Your task to perform on an android device: Find coffee shops on Maps Image 0: 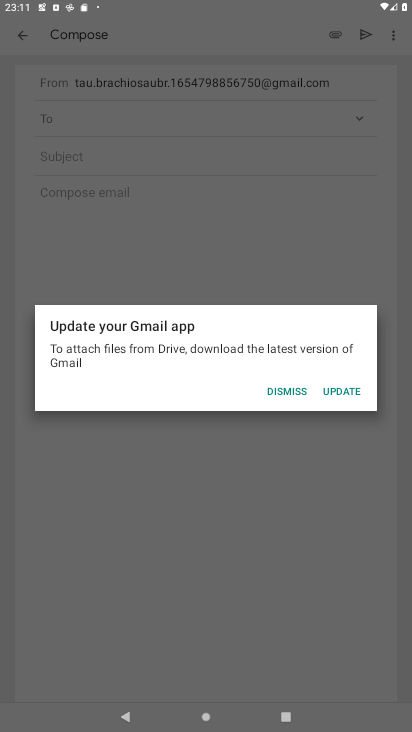
Step 0: press home button
Your task to perform on an android device: Find coffee shops on Maps Image 1: 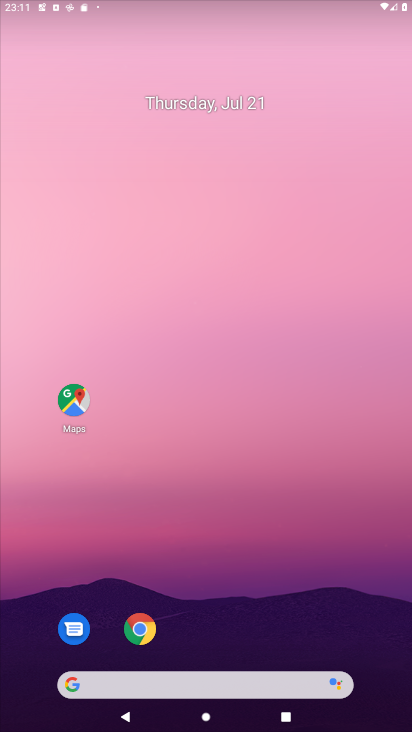
Step 1: drag from (281, 614) to (208, 109)
Your task to perform on an android device: Find coffee shops on Maps Image 2: 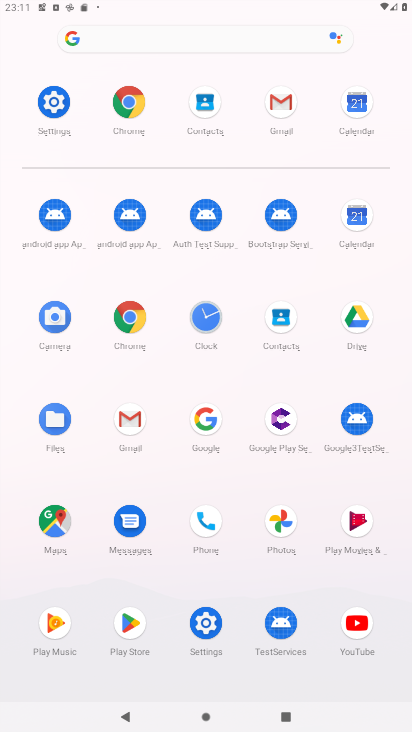
Step 2: click (64, 533)
Your task to perform on an android device: Find coffee shops on Maps Image 3: 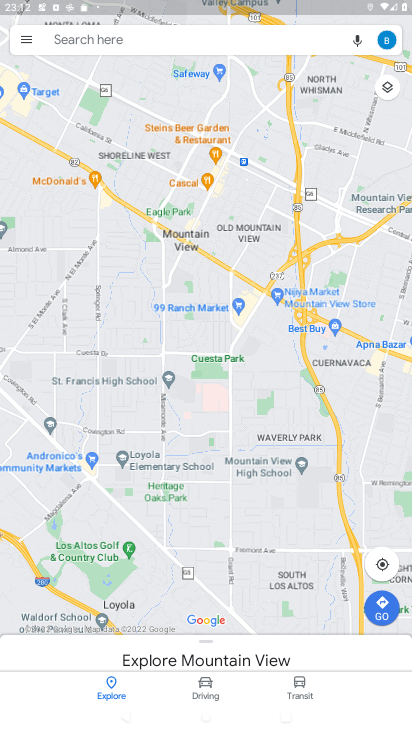
Step 3: click (123, 45)
Your task to perform on an android device: Find coffee shops on Maps Image 4: 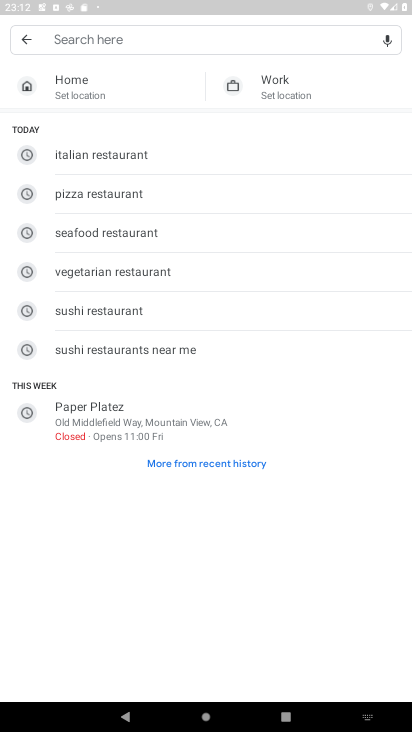
Step 4: click (105, 42)
Your task to perform on an android device: Find coffee shops on Maps Image 5: 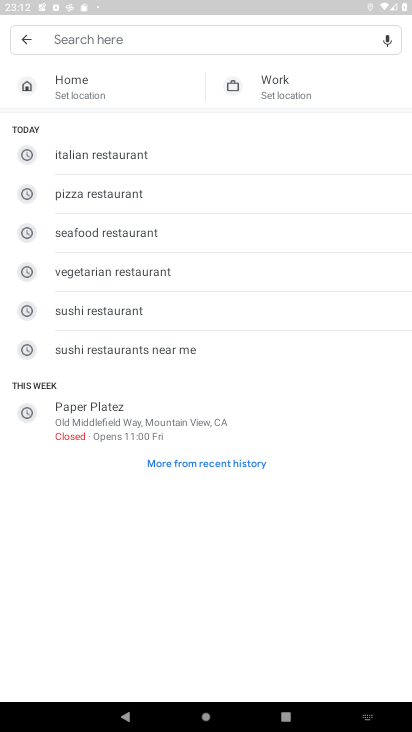
Step 5: type "coffee shops "
Your task to perform on an android device: Find coffee shops on Maps Image 6: 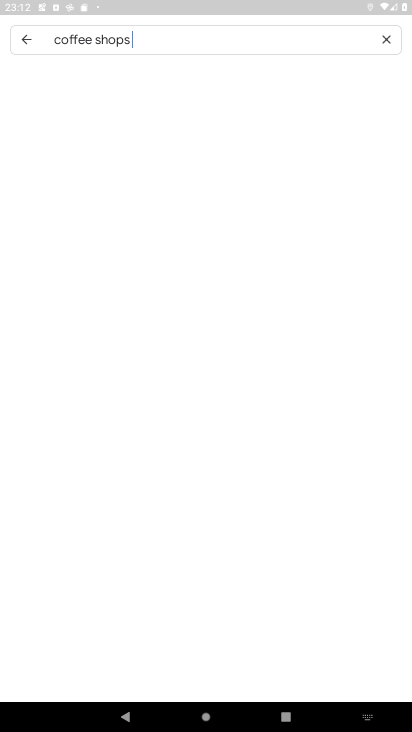
Step 6: type ""
Your task to perform on an android device: Find coffee shops on Maps Image 7: 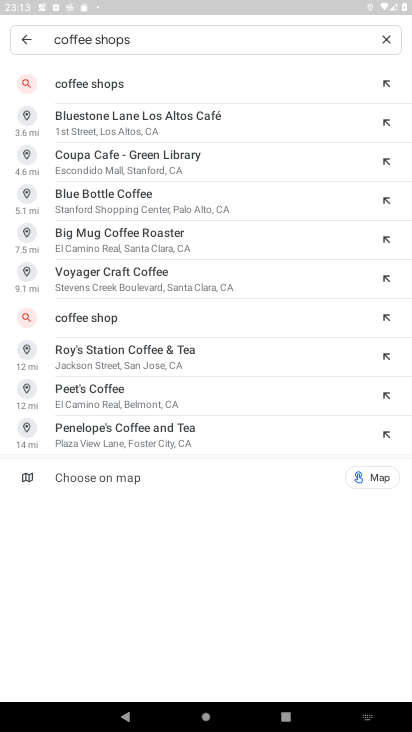
Step 7: click (156, 86)
Your task to perform on an android device: Find coffee shops on Maps Image 8: 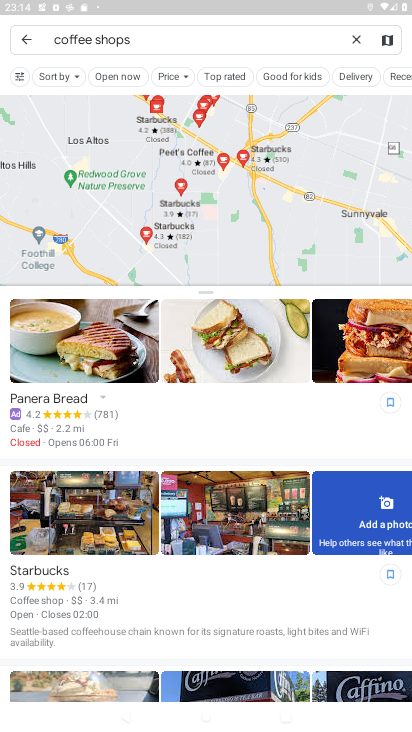
Step 8: task complete